Your task to perform on an android device: Open notification settings Image 0: 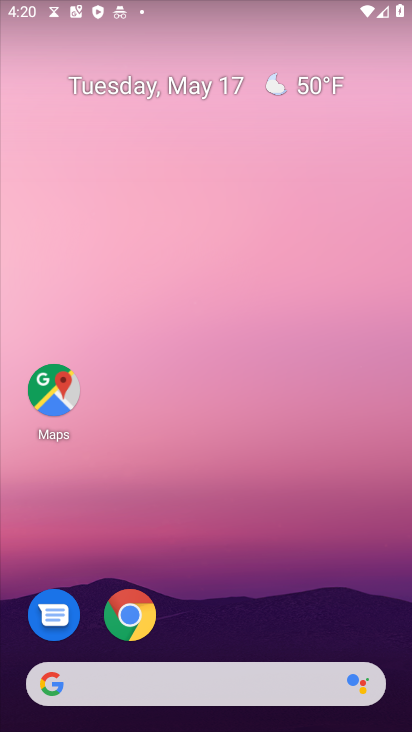
Step 0: drag from (281, 583) to (160, 15)
Your task to perform on an android device: Open notification settings Image 1: 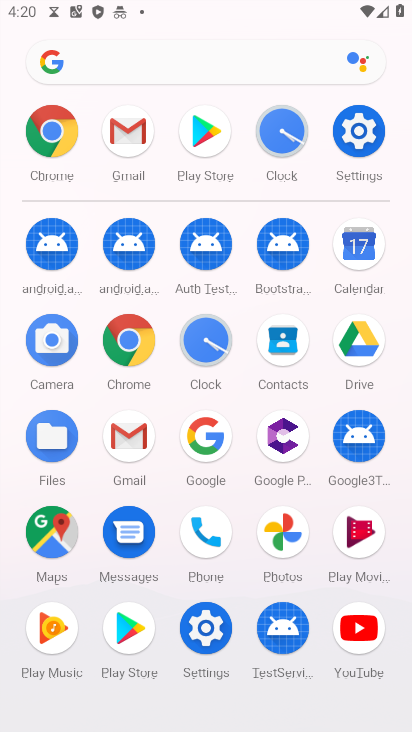
Step 1: click (343, 134)
Your task to perform on an android device: Open notification settings Image 2: 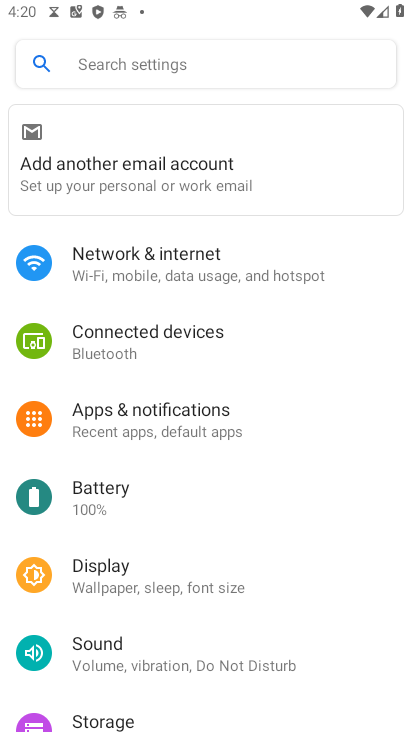
Step 2: click (122, 411)
Your task to perform on an android device: Open notification settings Image 3: 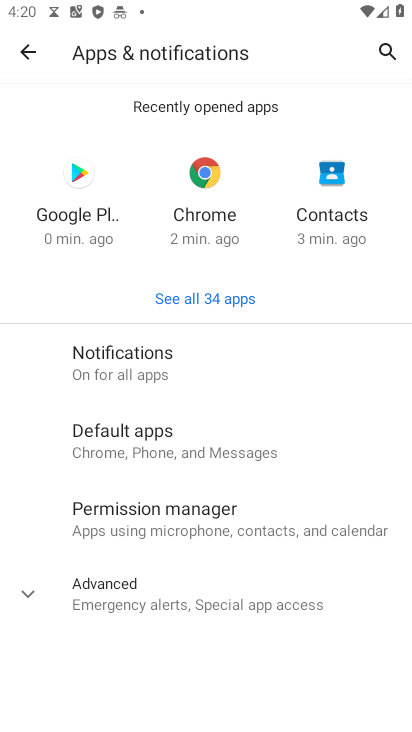
Step 3: click (111, 348)
Your task to perform on an android device: Open notification settings Image 4: 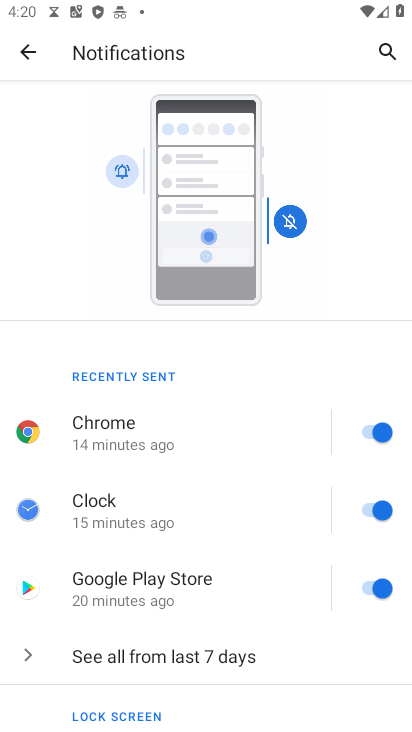
Step 4: drag from (149, 583) to (86, 242)
Your task to perform on an android device: Open notification settings Image 5: 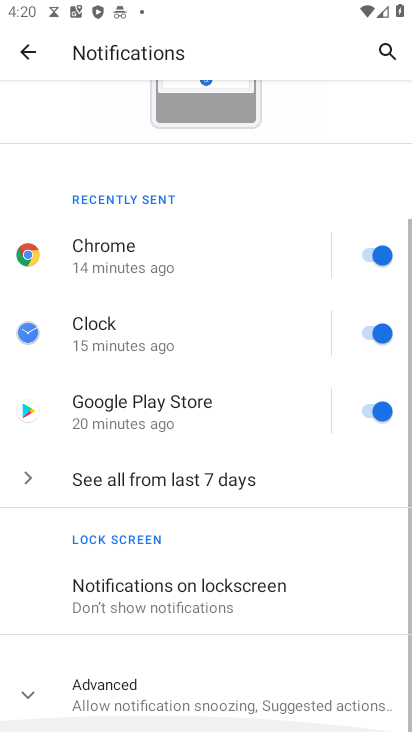
Step 5: drag from (233, 559) to (226, 224)
Your task to perform on an android device: Open notification settings Image 6: 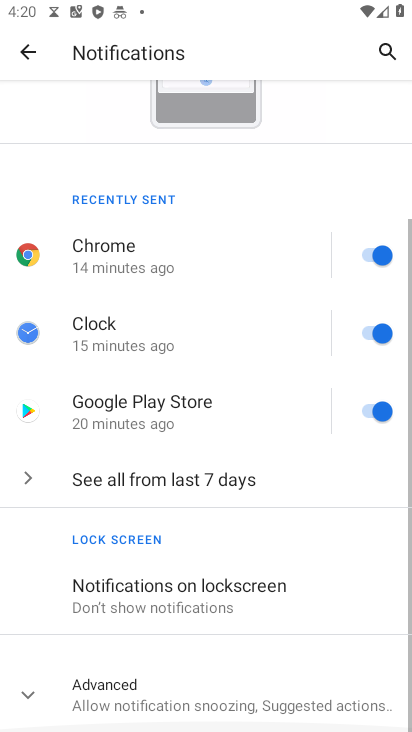
Step 6: drag from (207, 398) to (205, 174)
Your task to perform on an android device: Open notification settings Image 7: 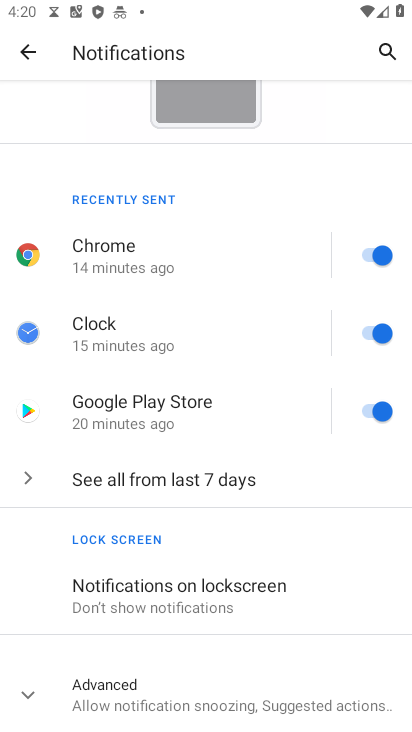
Step 7: click (90, 687)
Your task to perform on an android device: Open notification settings Image 8: 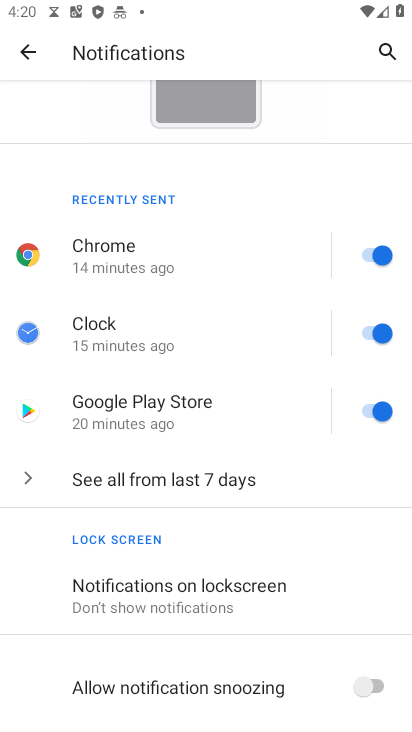
Step 8: drag from (202, 566) to (181, 137)
Your task to perform on an android device: Open notification settings Image 9: 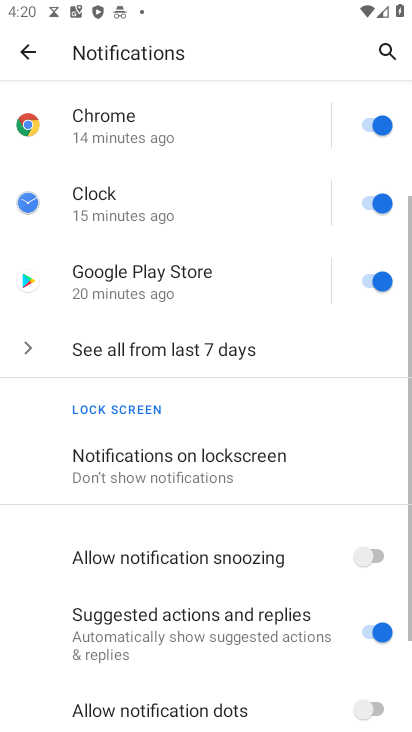
Step 9: drag from (184, 428) to (179, 58)
Your task to perform on an android device: Open notification settings Image 10: 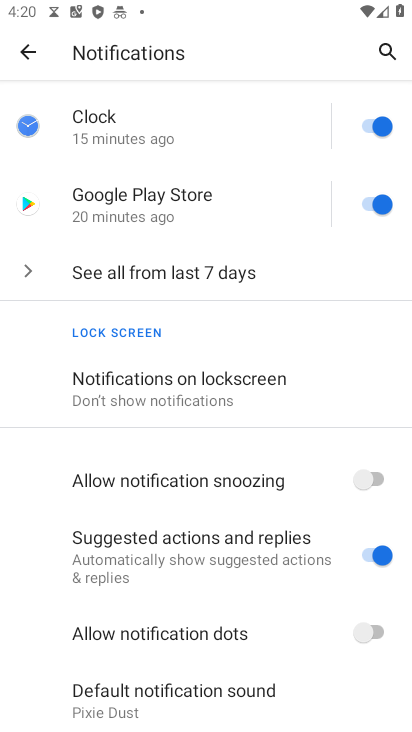
Step 10: click (355, 480)
Your task to perform on an android device: Open notification settings Image 11: 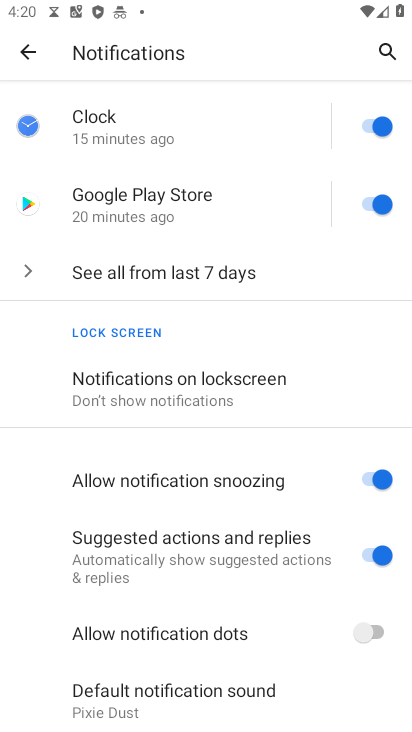
Step 11: click (361, 626)
Your task to perform on an android device: Open notification settings Image 12: 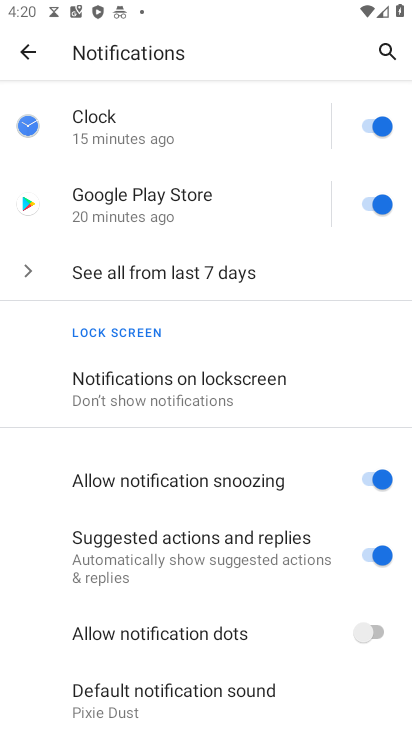
Step 12: click (363, 637)
Your task to perform on an android device: Open notification settings Image 13: 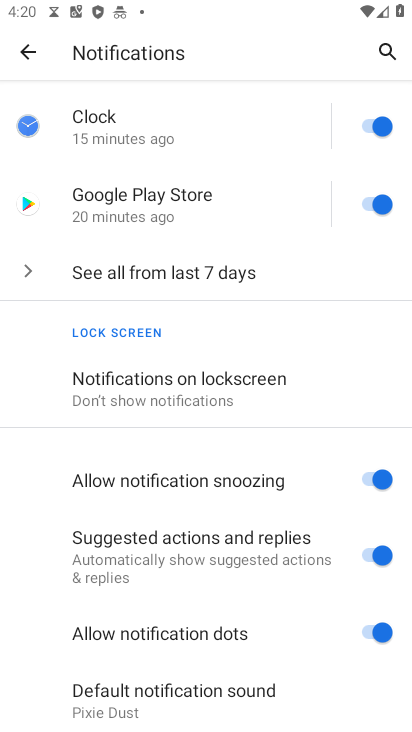
Step 13: task complete